Your task to perform on an android device: Open battery settings Image 0: 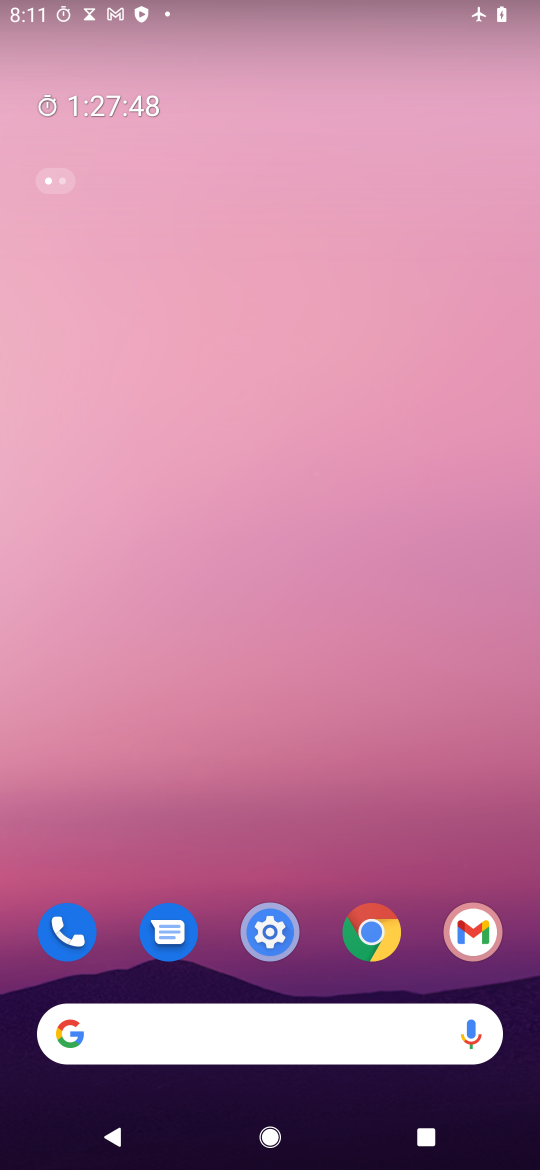
Step 0: drag from (362, 881) to (464, 168)
Your task to perform on an android device: Open battery settings Image 1: 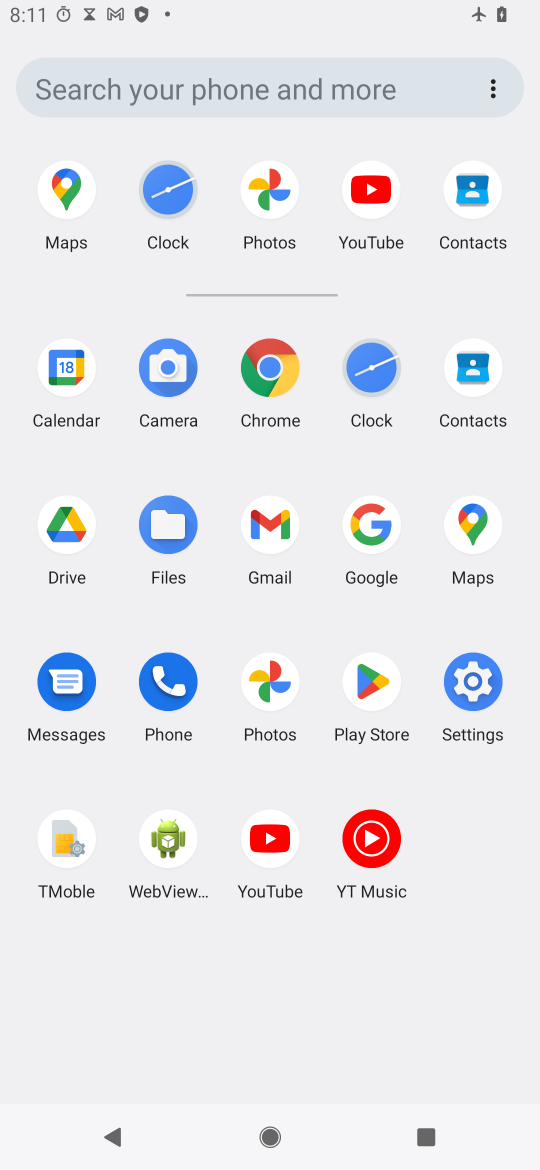
Step 1: click (490, 700)
Your task to perform on an android device: Open battery settings Image 2: 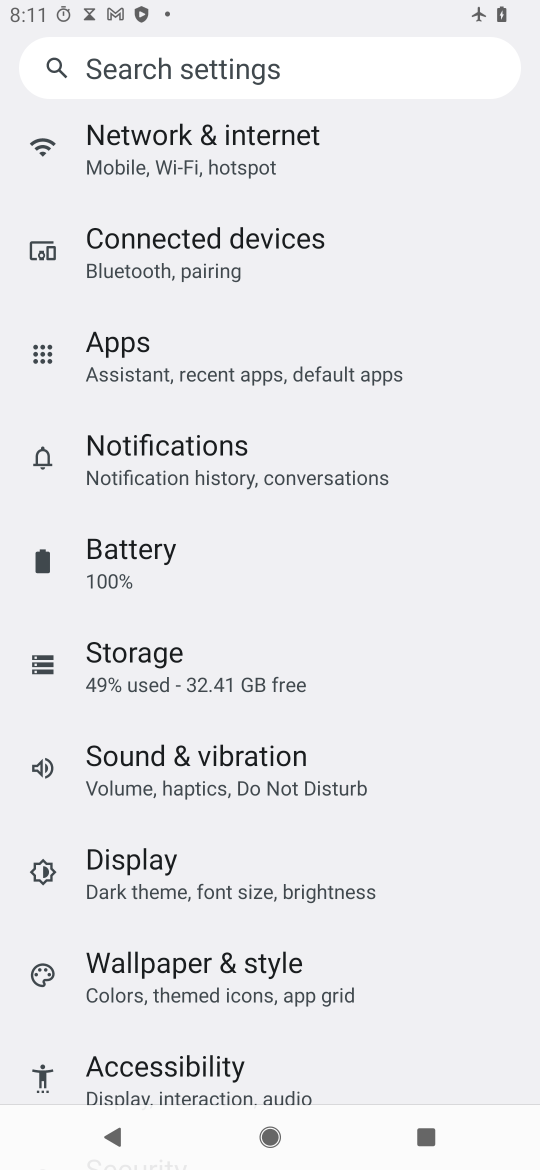
Step 2: click (154, 550)
Your task to perform on an android device: Open battery settings Image 3: 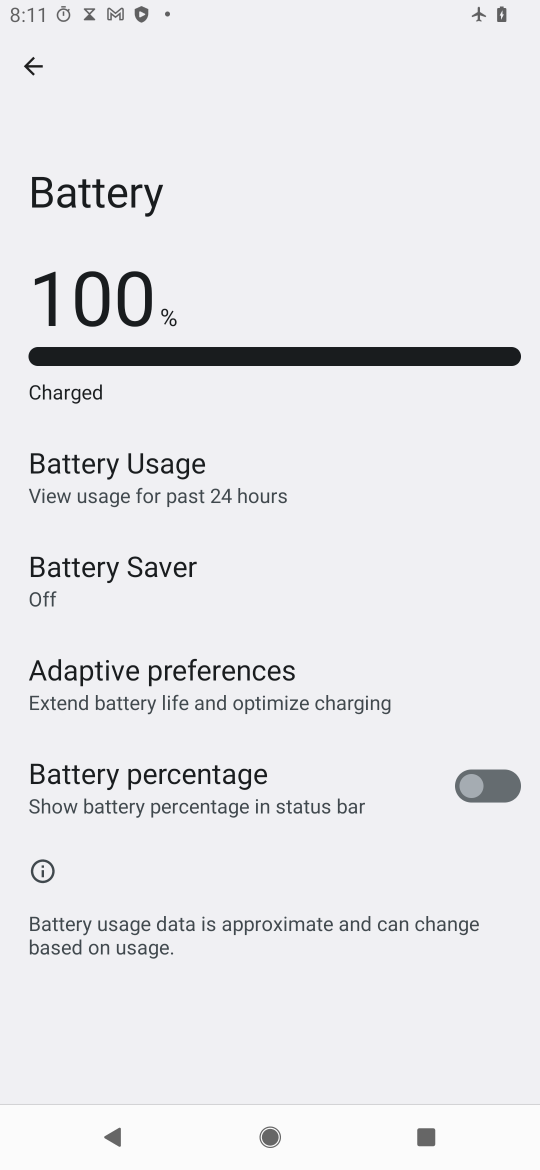
Step 3: task complete